Your task to perform on an android device: change notification settings in the gmail app Image 0: 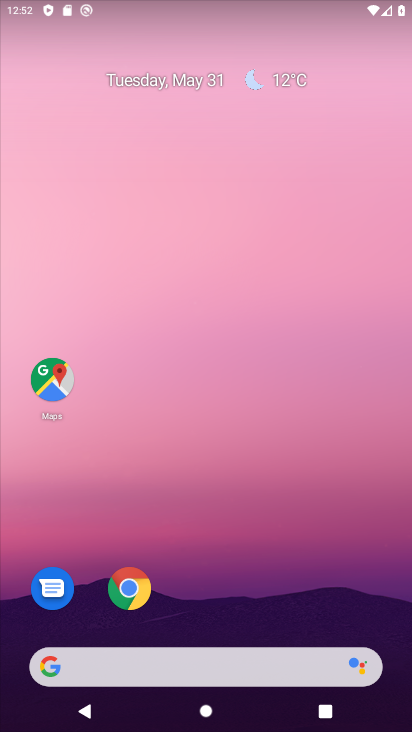
Step 0: drag from (400, 695) to (349, 173)
Your task to perform on an android device: change notification settings in the gmail app Image 1: 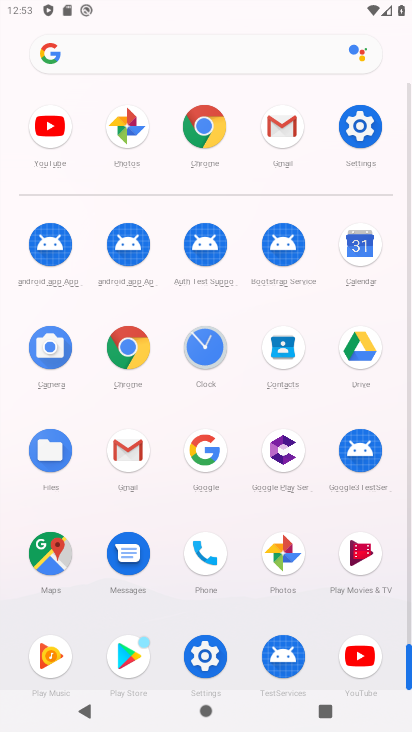
Step 1: click (285, 128)
Your task to perform on an android device: change notification settings in the gmail app Image 2: 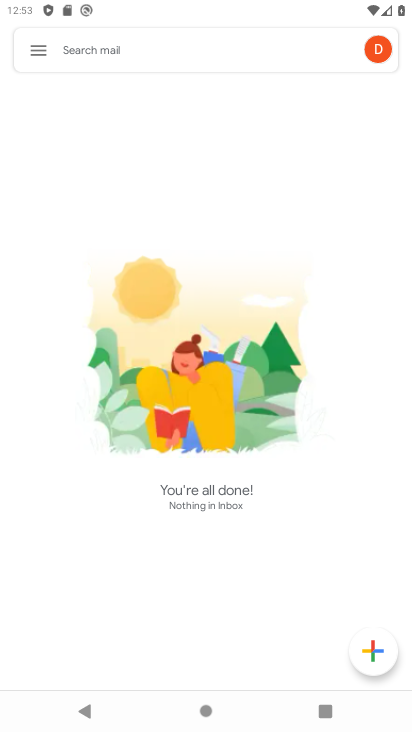
Step 2: click (35, 44)
Your task to perform on an android device: change notification settings in the gmail app Image 3: 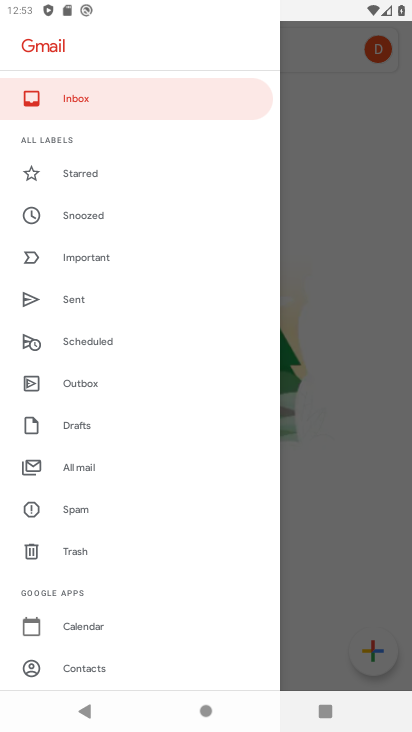
Step 3: drag from (197, 633) to (176, 283)
Your task to perform on an android device: change notification settings in the gmail app Image 4: 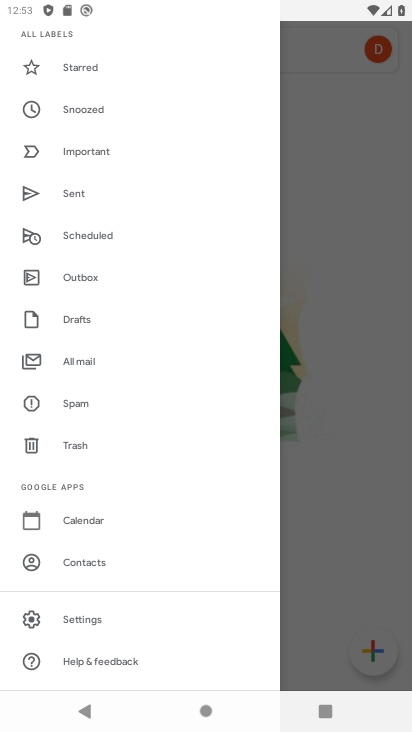
Step 4: click (77, 620)
Your task to perform on an android device: change notification settings in the gmail app Image 5: 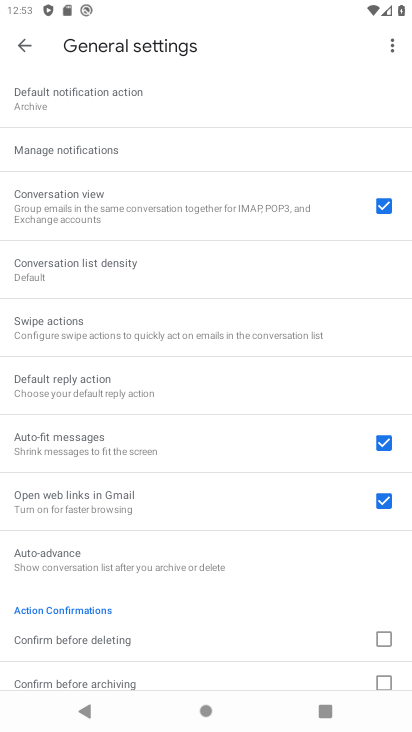
Step 5: click (105, 148)
Your task to perform on an android device: change notification settings in the gmail app Image 6: 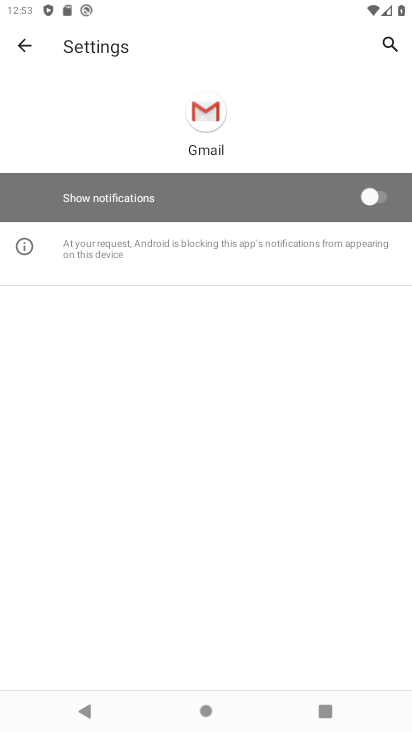
Step 6: click (387, 195)
Your task to perform on an android device: change notification settings in the gmail app Image 7: 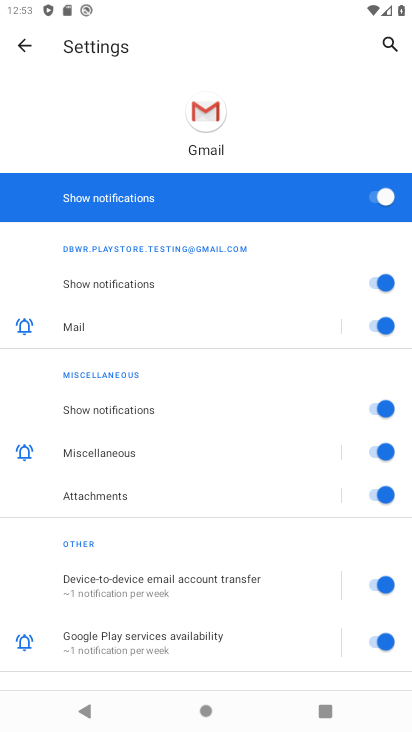
Step 7: task complete